Your task to perform on an android device: add a contact in the contacts app Image 0: 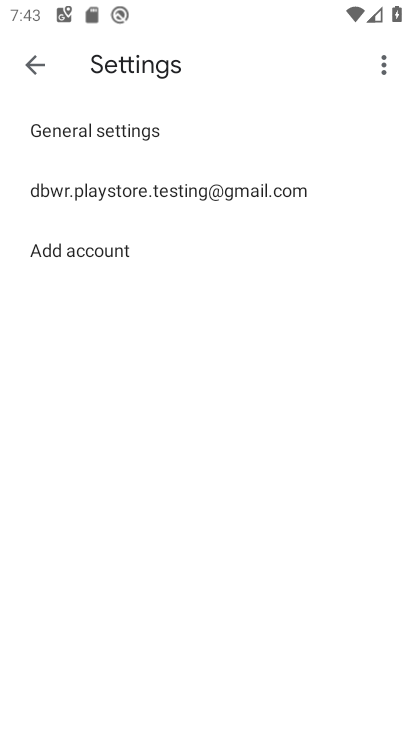
Step 0: press back button
Your task to perform on an android device: add a contact in the contacts app Image 1: 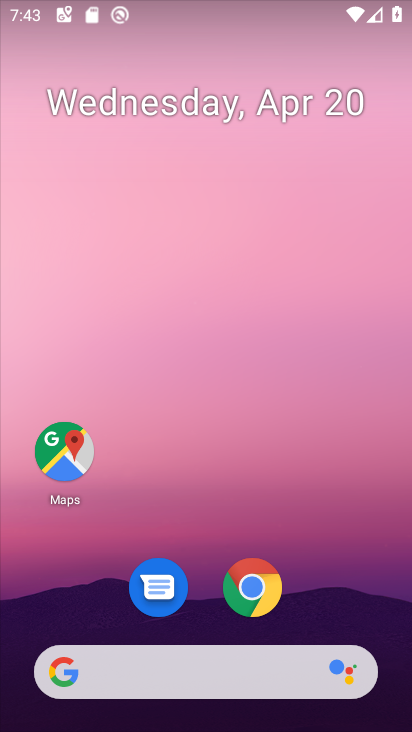
Step 1: drag from (333, 579) to (313, 388)
Your task to perform on an android device: add a contact in the contacts app Image 2: 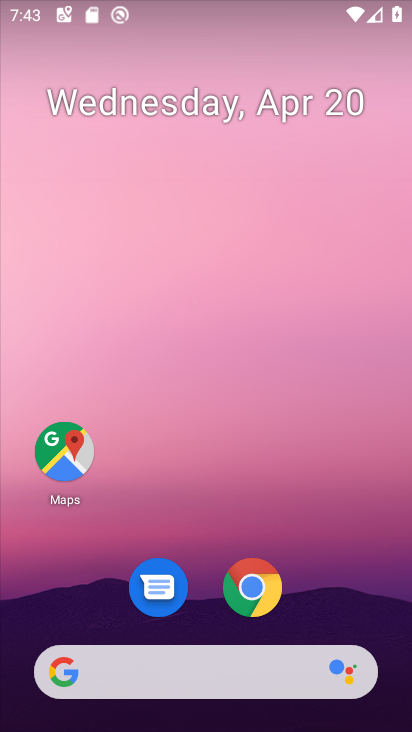
Step 2: drag from (351, 621) to (319, 234)
Your task to perform on an android device: add a contact in the contacts app Image 3: 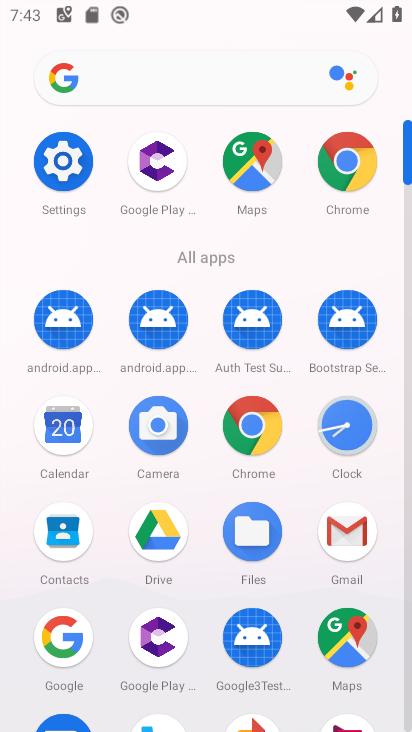
Step 3: click (52, 528)
Your task to perform on an android device: add a contact in the contacts app Image 4: 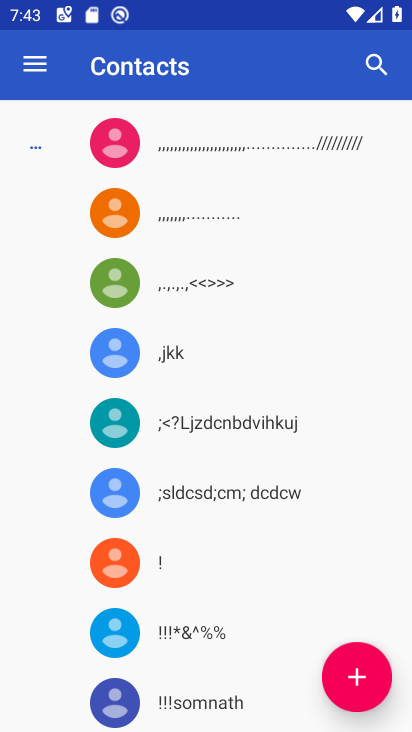
Step 4: click (366, 674)
Your task to perform on an android device: add a contact in the contacts app Image 5: 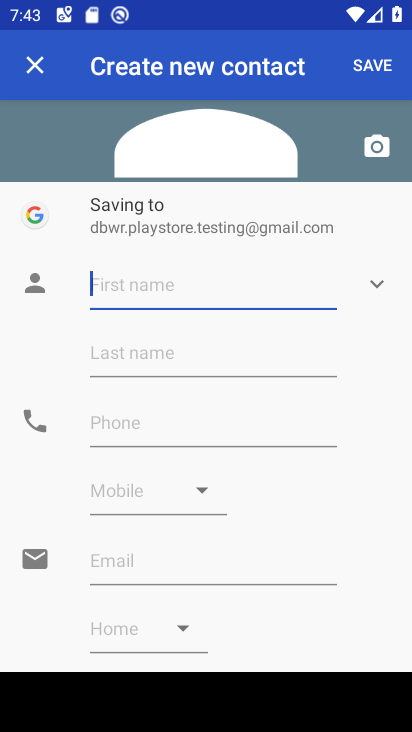
Step 5: type "sdvs"
Your task to perform on an android device: add a contact in the contacts app Image 6: 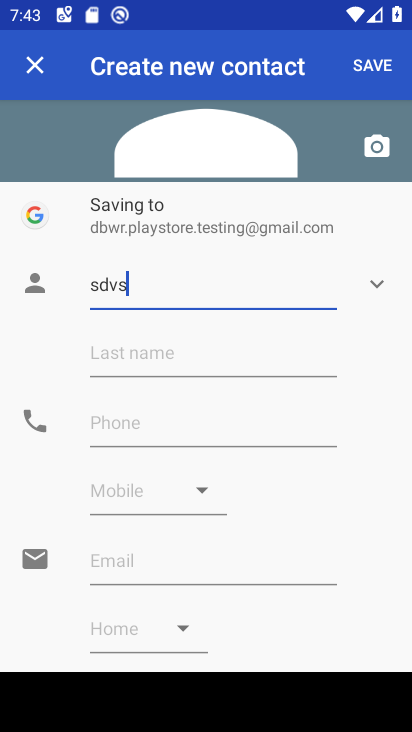
Step 6: click (207, 361)
Your task to perform on an android device: add a contact in the contacts app Image 7: 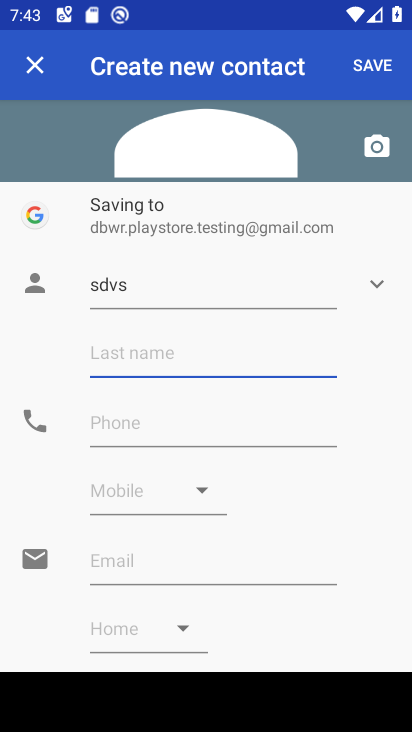
Step 7: click (317, 297)
Your task to perform on an android device: add a contact in the contacts app Image 8: 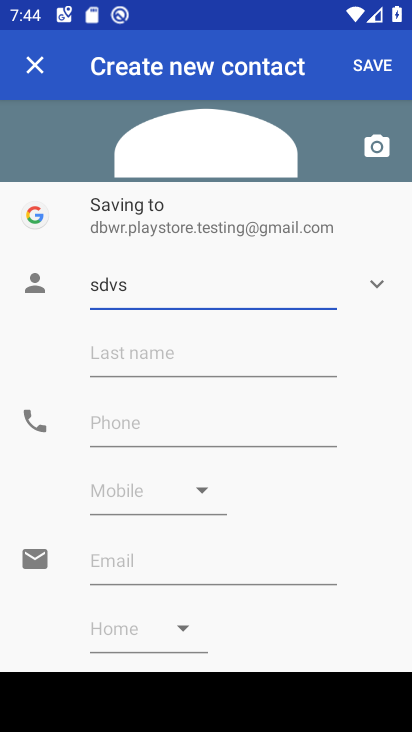
Step 8: click (118, 283)
Your task to perform on an android device: add a contact in the contacts app Image 9: 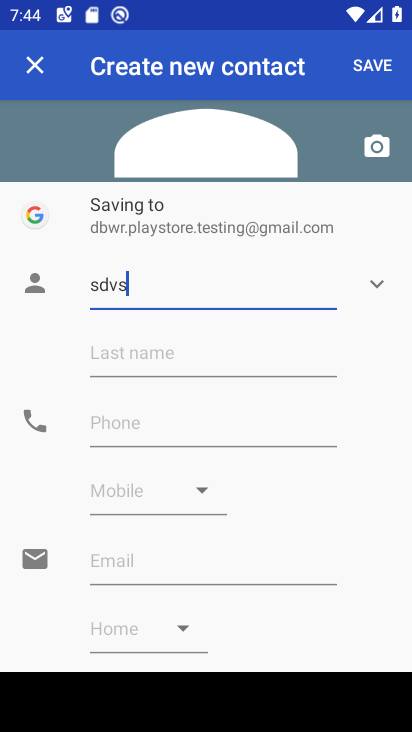
Step 9: click (118, 283)
Your task to perform on an android device: add a contact in the contacts app Image 10: 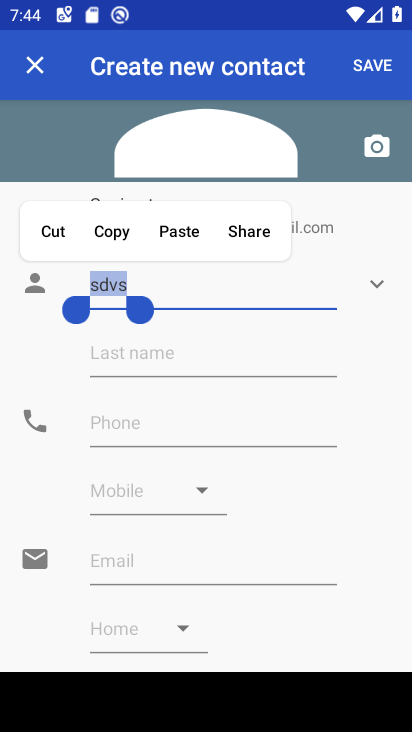
Step 10: type "vadimir "
Your task to perform on an android device: add a contact in the contacts app Image 11: 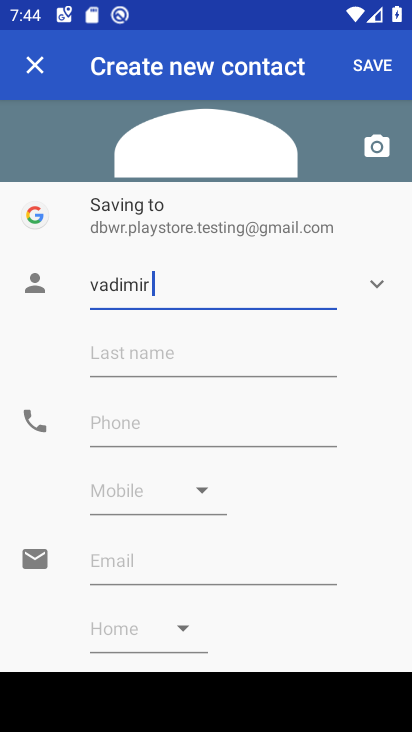
Step 11: click (253, 360)
Your task to perform on an android device: add a contact in the contacts app Image 12: 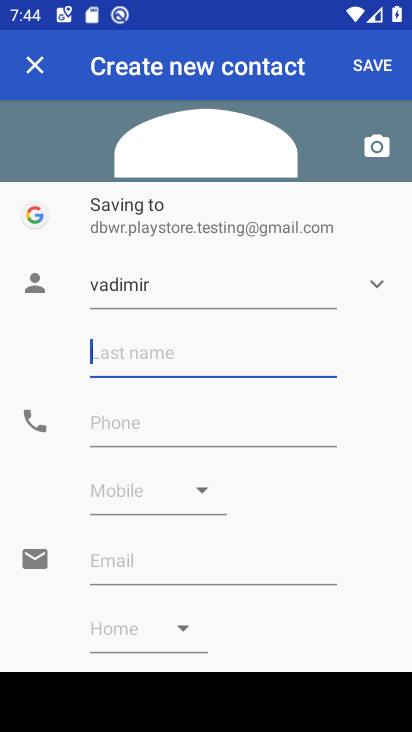
Step 12: type "zelensky"
Your task to perform on an android device: add a contact in the contacts app Image 13: 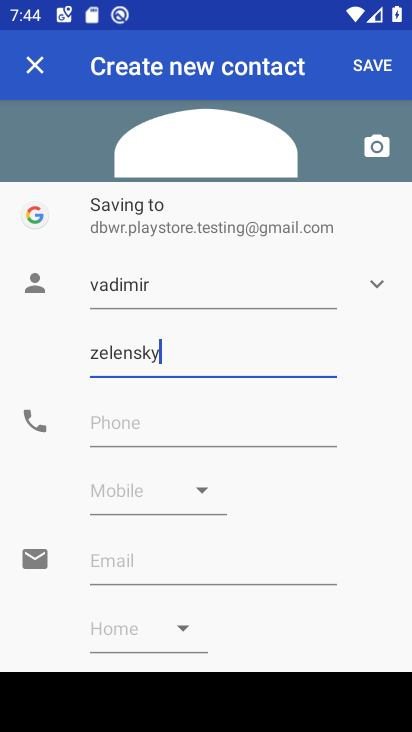
Step 13: click (193, 427)
Your task to perform on an android device: add a contact in the contacts app Image 14: 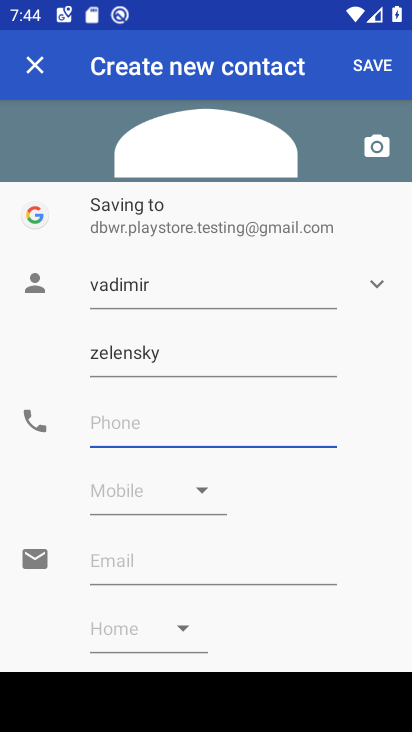
Step 14: task complete